Your task to perform on an android device: Show me popular videos on Youtube Image 0: 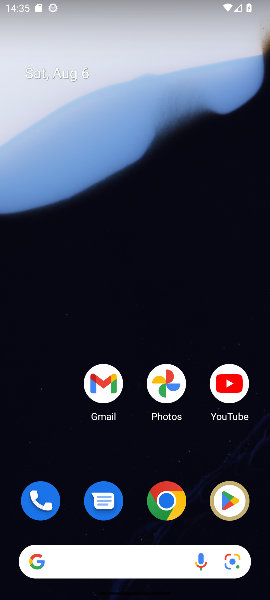
Step 0: press home button
Your task to perform on an android device: Show me popular videos on Youtube Image 1: 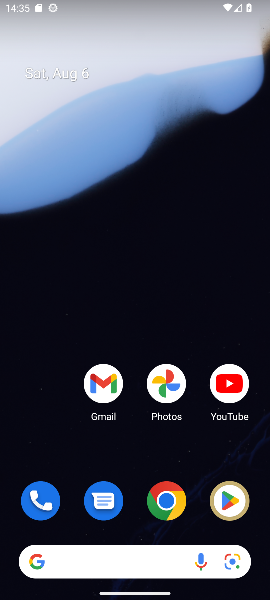
Step 1: drag from (166, 531) to (259, 397)
Your task to perform on an android device: Show me popular videos on Youtube Image 2: 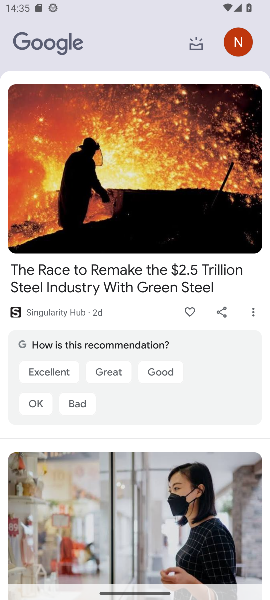
Step 2: press home button
Your task to perform on an android device: Show me popular videos on Youtube Image 3: 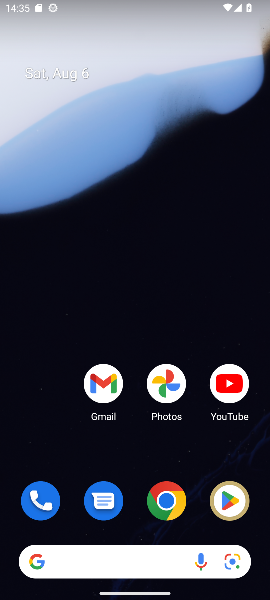
Step 3: click (221, 394)
Your task to perform on an android device: Show me popular videos on Youtube Image 4: 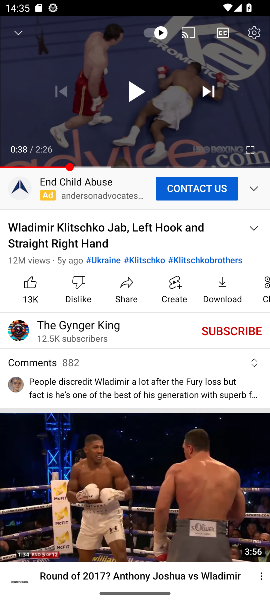
Step 4: drag from (206, 574) to (193, 138)
Your task to perform on an android device: Show me popular videos on Youtube Image 5: 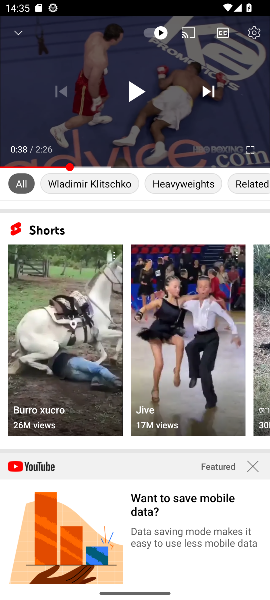
Step 5: press back button
Your task to perform on an android device: Show me popular videos on Youtube Image 6: 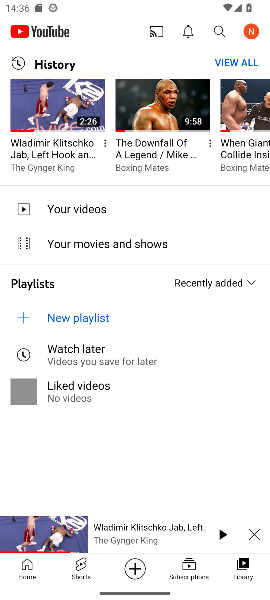
Step 6: click (21, 568)
Your task to perform on an android device: Show me popular videos on Youtube Image 7: 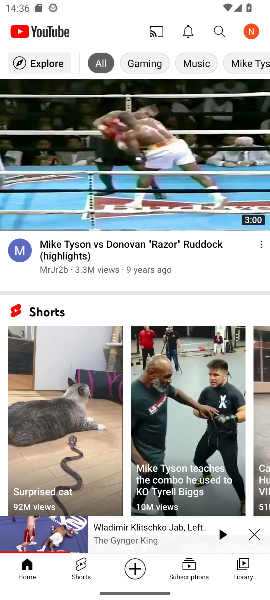
Step 7: click (42, 68)
Your task to perform on an android device: Show me popular videos on Youtube Image 8: 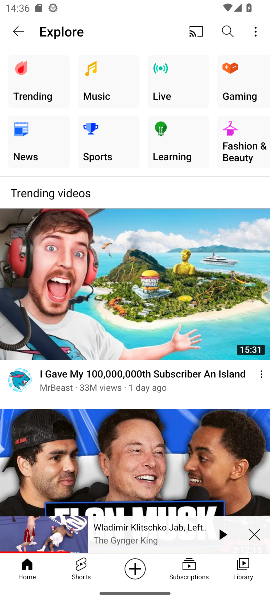
Step 8: click (28, 81)
Your task to perform on an android device: Show me popular videos on Youtube Image 9: 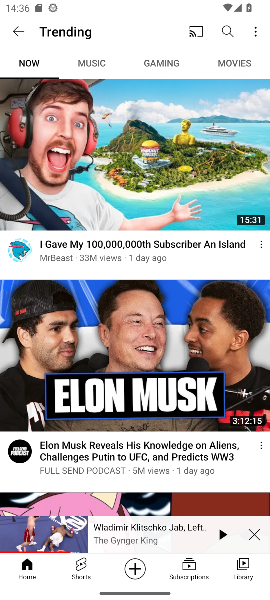
Step 9: task complete